Your task to perform on an android device: find which apps use the phone's location Image 0: 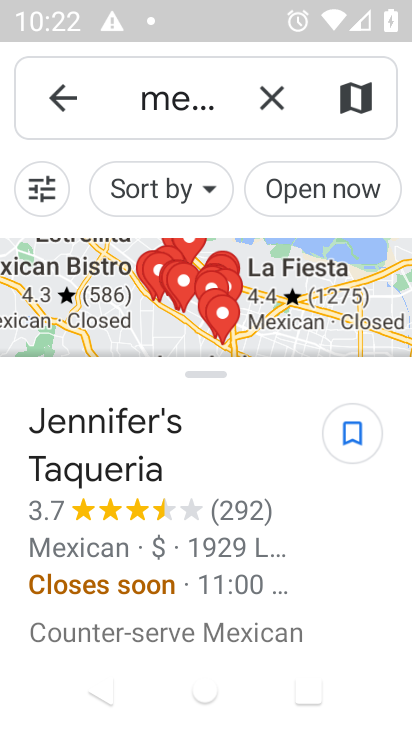
Step 0: press home button
Your task to perform on an android device: find which apps use the phone's location Image 1: 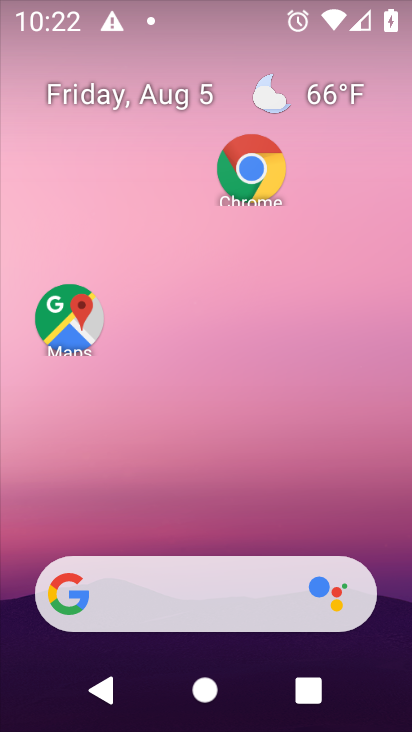
Step 1: drag from (199, 503) to (146, 134)
Your task to perform on an android device: find which apps use the phone's location Image 2: 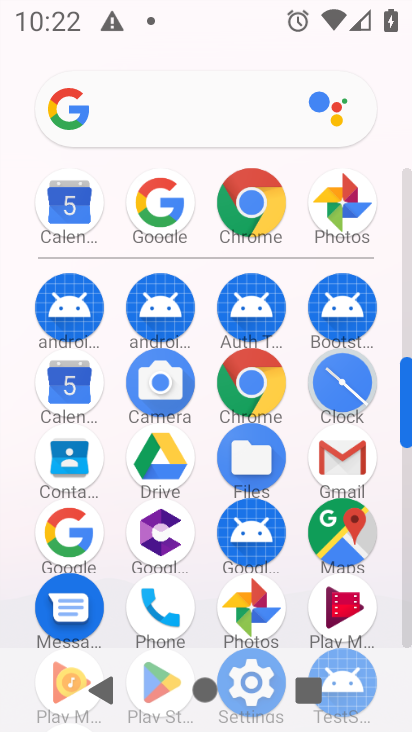
Step 2: drag from (227, 575) to (258, 296)
Your task to perform on an android device: find which apps use the phone's location Image 3: 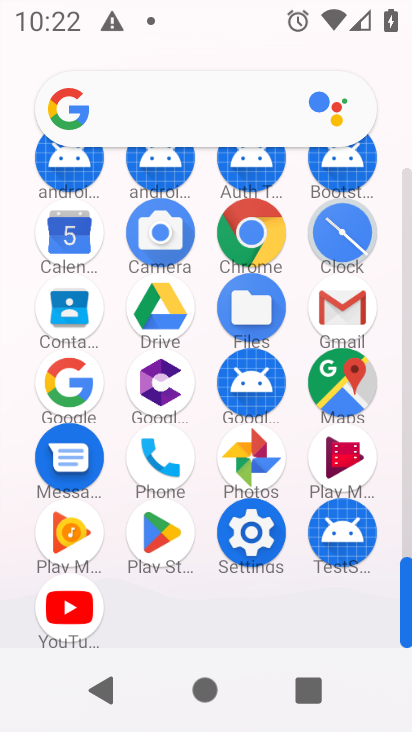
Step 3: click (225, 524)
Your task to perform on an android device: find which apps use the phone's location Image 4: 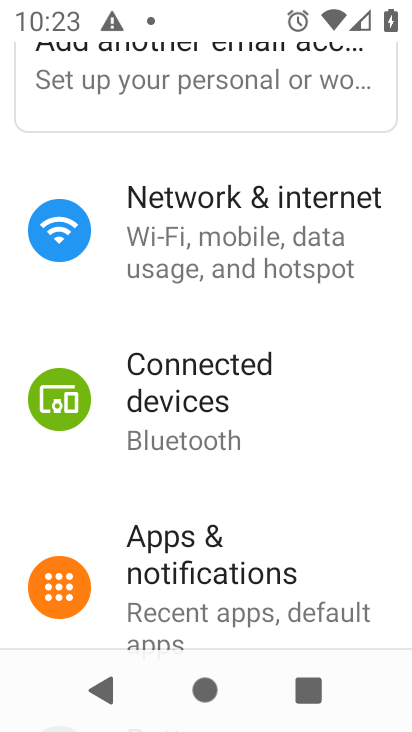
Step 4: drag from (240, 538) to (236, 219)
Your task to perform on an android device: find which apps use the phone's location Image 5: 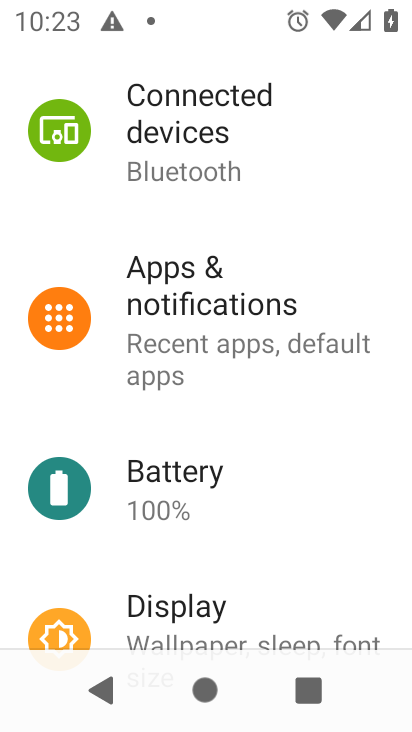
Step 5: drag from (219, 565) to (217, 148)
Your task to perform on an android device: find which apps use the phone's location Image 6: 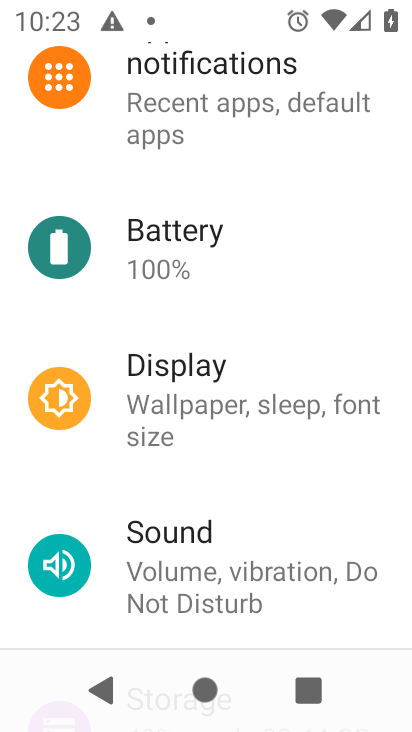
Step 6: drag from (178, 556) to (226, 177)
Your task to perform on an android device: find which apps use the phone's location Image 7: 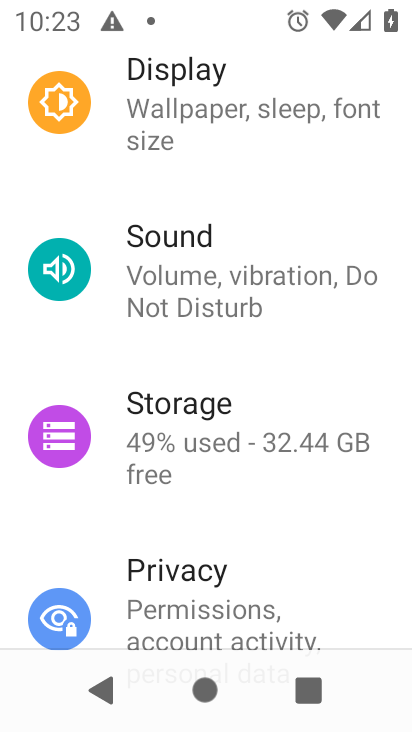
Step 7: drag from (175, 601) to (190, 167)
Your task to perform on an android device: find which apps use the phone's location Image 8: 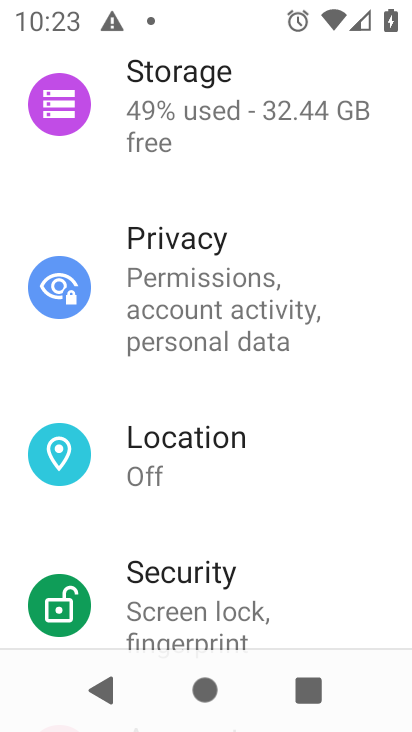
Step 8: click (172, 486)
Your task to perform on an android device: find which apps use the phone's location Image 9: 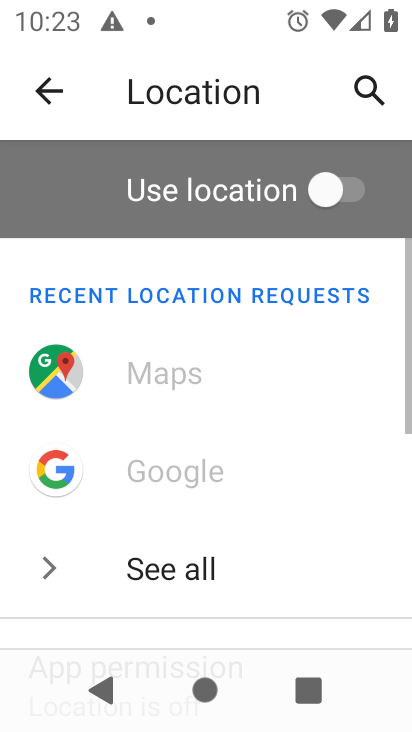
Step 9: drag from (232, 553) to (198, 158)
Your task to perform on an android device: find which apps use the phone's location Image 10: 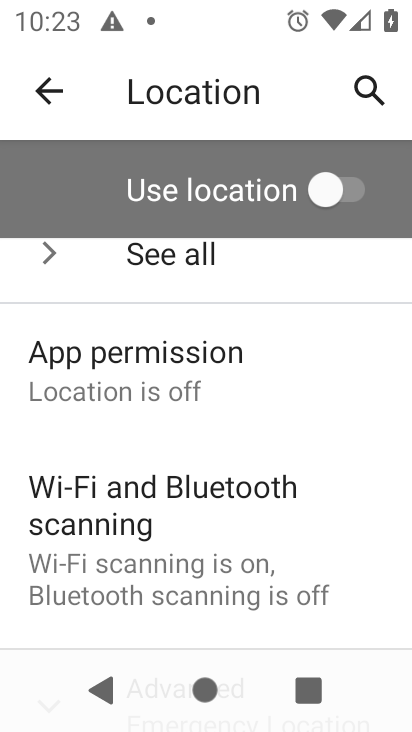
Step 10: click (198, 358)
Your task to perform on an android device: find which apps use the phone's location Image 11: 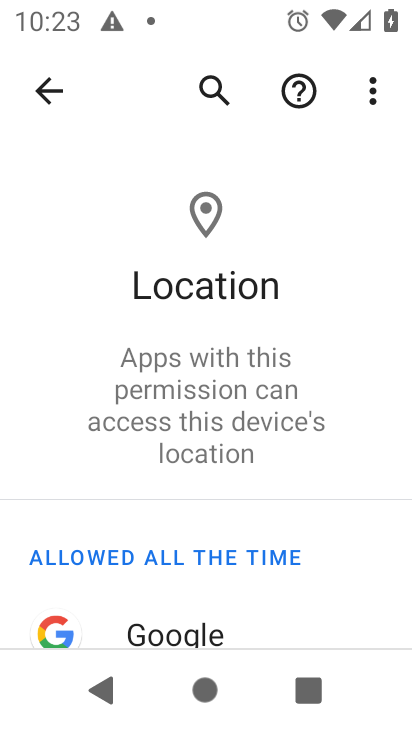
Step 11: task complete